Your task to perform on an android device: View the shopping cart on newegg.com. Search for "razer blackwidow" on newegg.com, select the first entry, add it to the cart, then select checkout. Image 0: 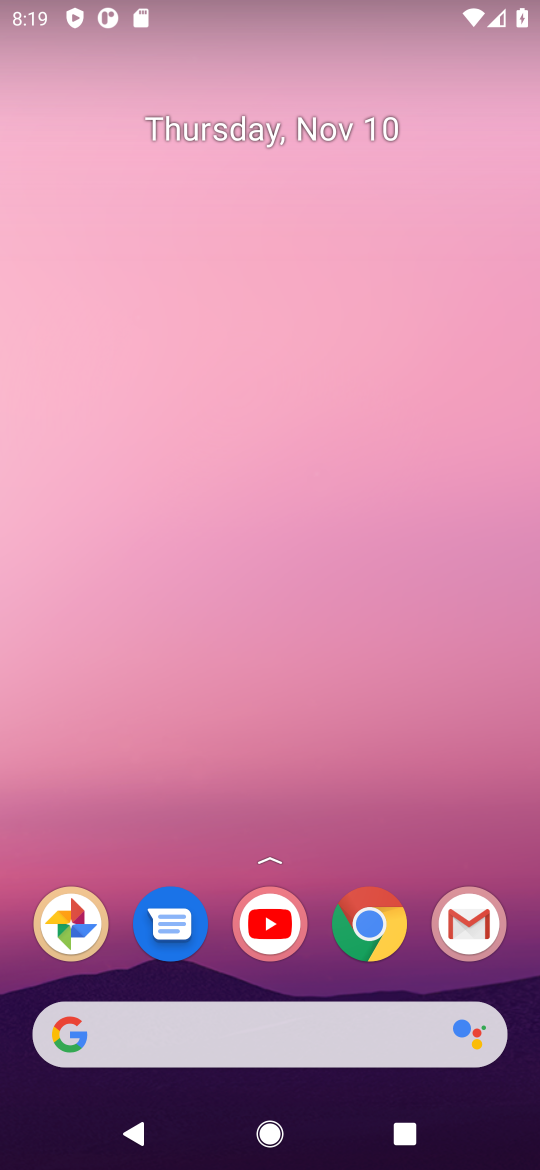
Step 0: click (368, 958)
Your task to perform on an android device: View the shopping cart on newegg.com. Search for "razer blackwidow" on newegg.com, select the first entry, add it to the cart, then select checkout. Image 1: 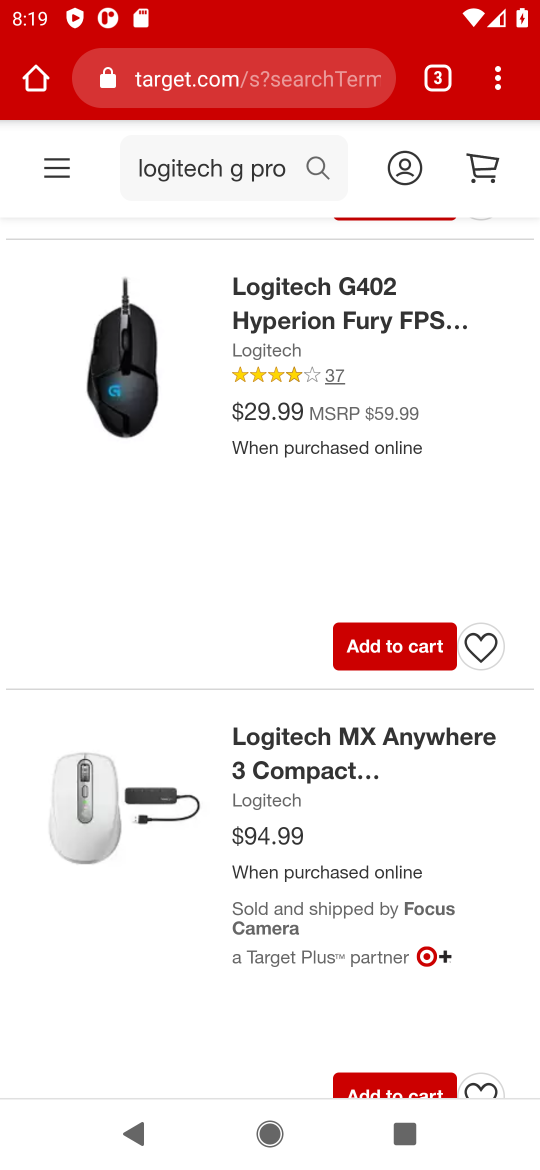
Step 1: click (197, 77)
Your task to perform on an android device: View the shopping cart on newegg.com. Search for "razer blackwidow" on newegg.com, select the first entry, add it to the cart, then select checkout. Image 2: 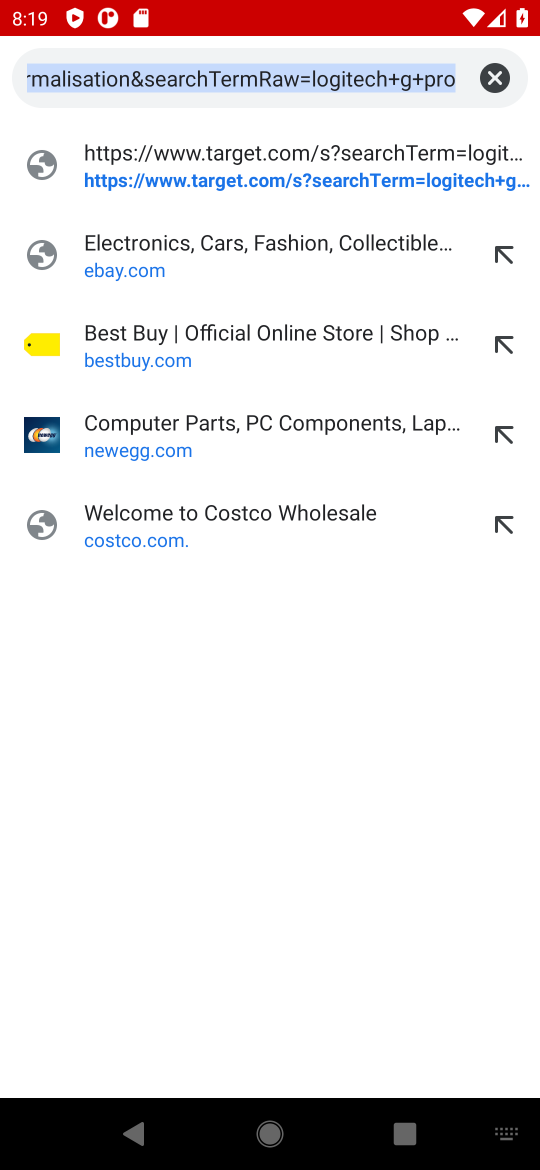
Step 2: click (118, 434)
Your task to perform on an android device: View the shopping cart on newegg.com. Search for "razer blackwidow" on newegg.com, select the first entry, add it to the cart, then select checkout. Image 3: 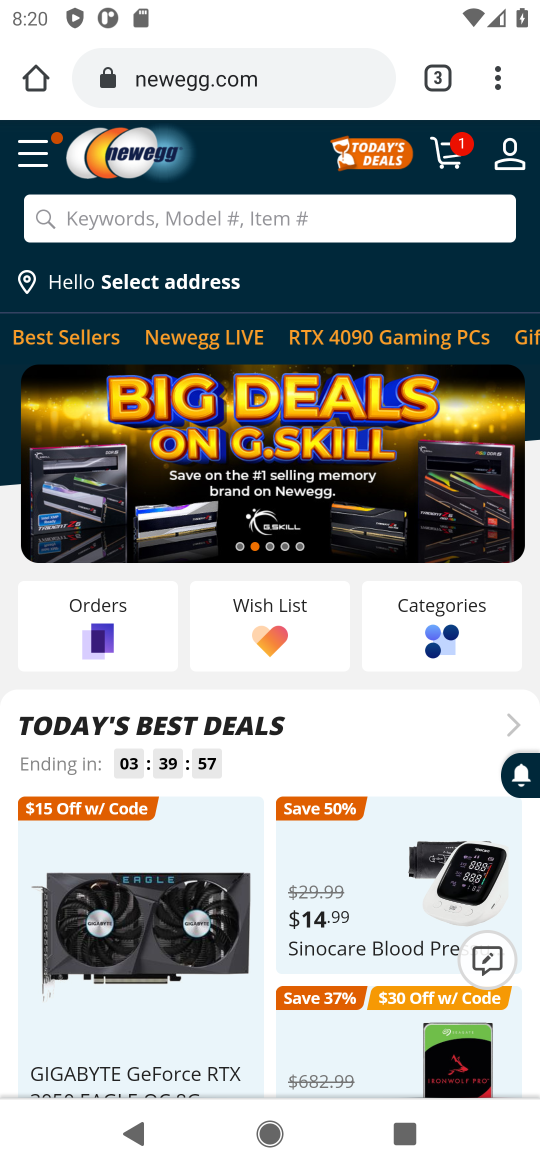
Step 3: click (452, 155)
Your task to perform on an android device: View the shopping cart on newegg.com. Search for "razer blackwidow" on newegg.com, select the first entry, add it to the cart, then select checkout. Image 4: 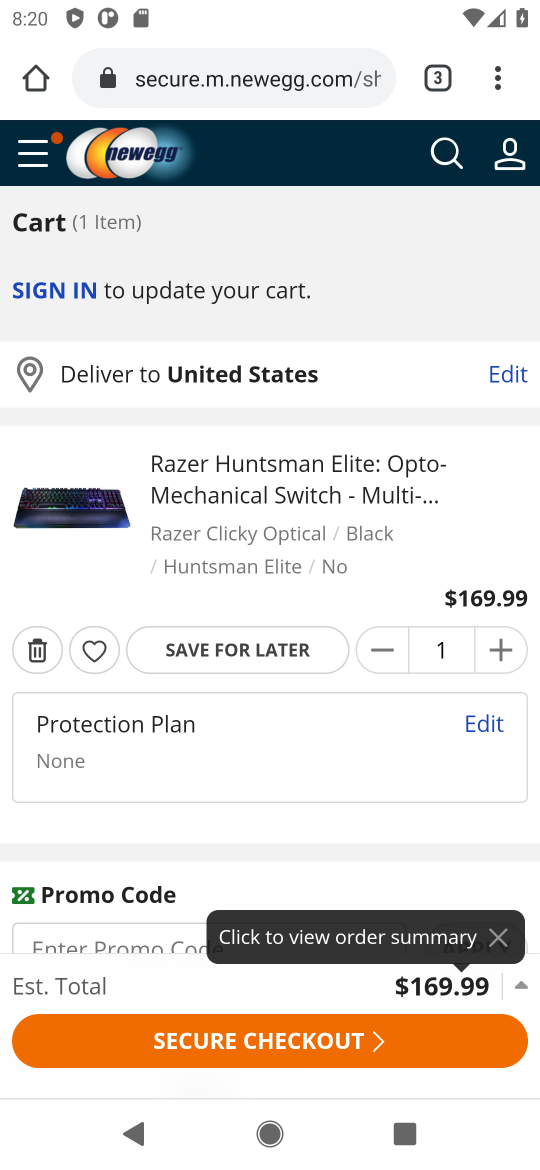
Step 4: click (439, 157)
Your task to perform on an android device: View the shopping cart on newegg.com. Search for "razer blackwidow" on newegg.com, select the first entry, add it to the cart, then select checkout. Image 5: 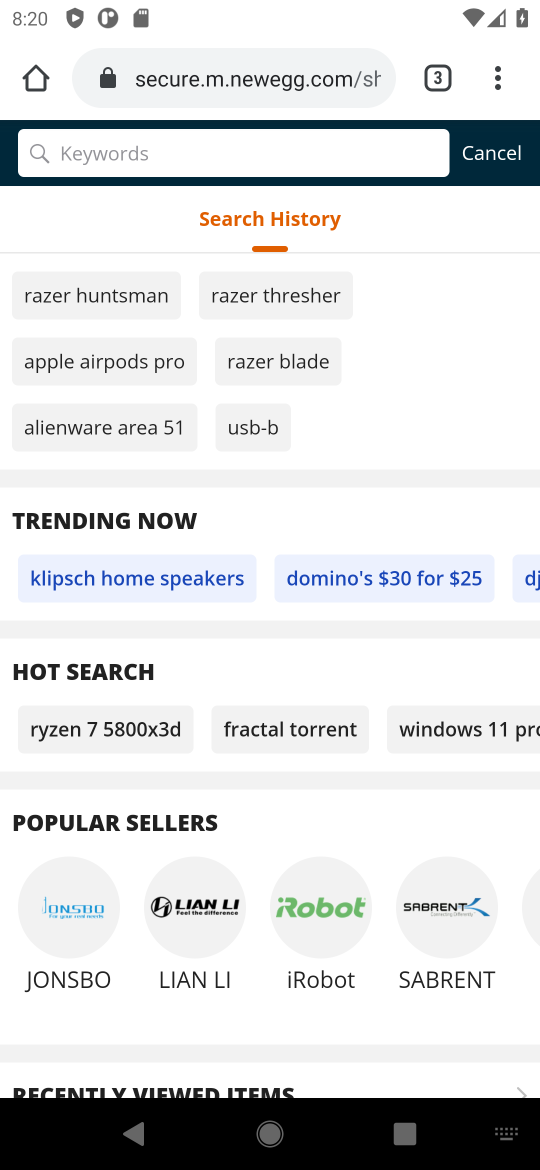
Step 5: type "razer blackwidow"
Your task to perform on an android device: View the shopping cart on newegg.com. Search for "razer blackwidow" on newegg.com, select the first entry, add it to the cart, then select checkout. Image 6: 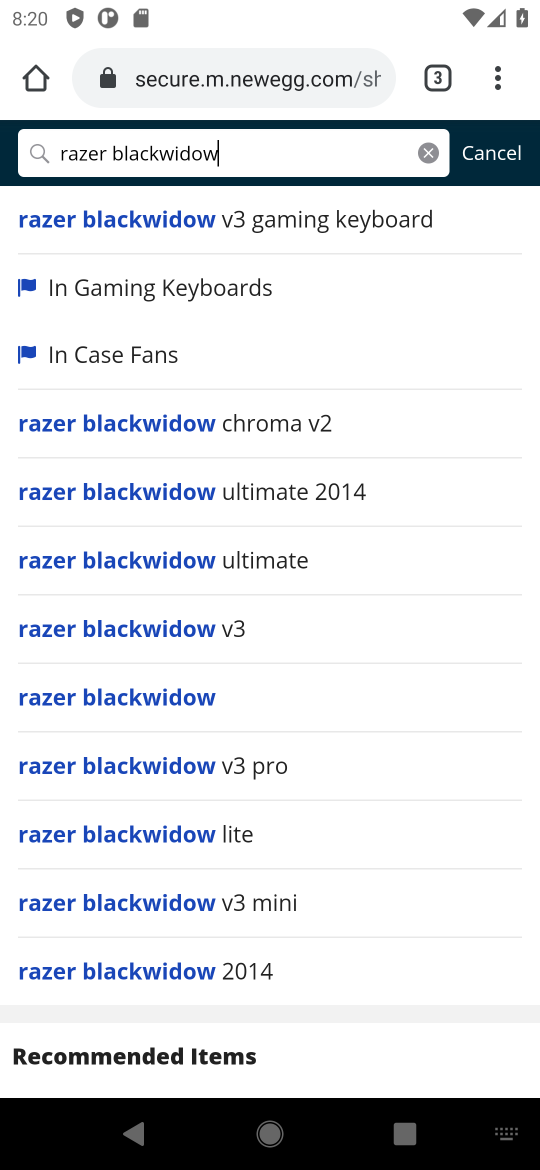
Step 6: click (161, 693)
Your task to perform on an android device: View the shopping cart on newegg.com. Search for "razer blackwidow" on newegg.com, select the first entry, add it to the cart, then select checkout. Image 7: 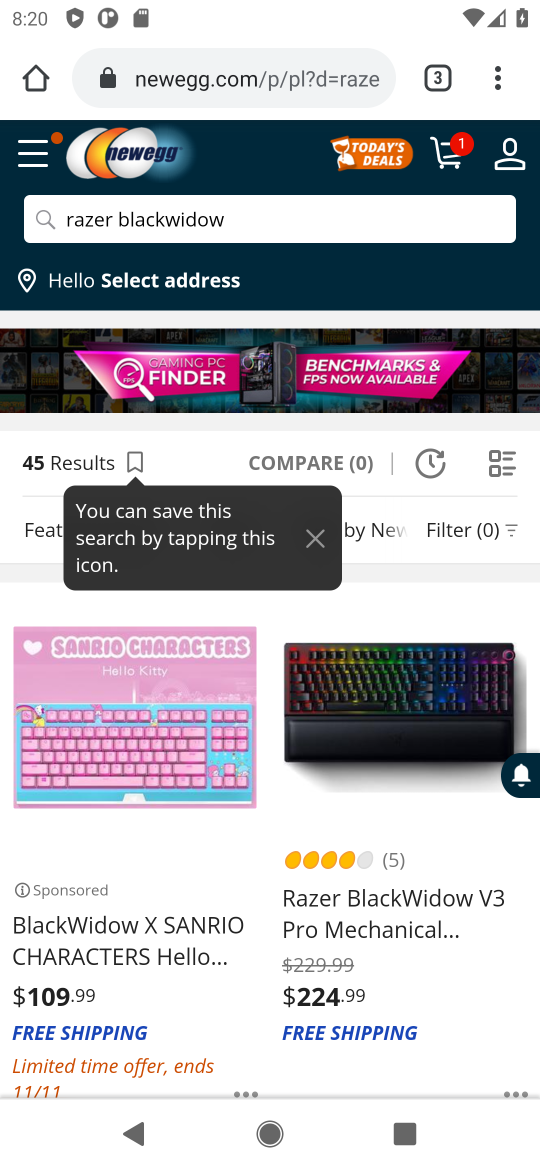
Step 7: click (139, 855)
Your task to perform on an android device: View the shopping cart on newegg.com. Search for "razer blackwidow" on newegg.com, select the first entry, add it to the cart, then select checkout. Image 8: 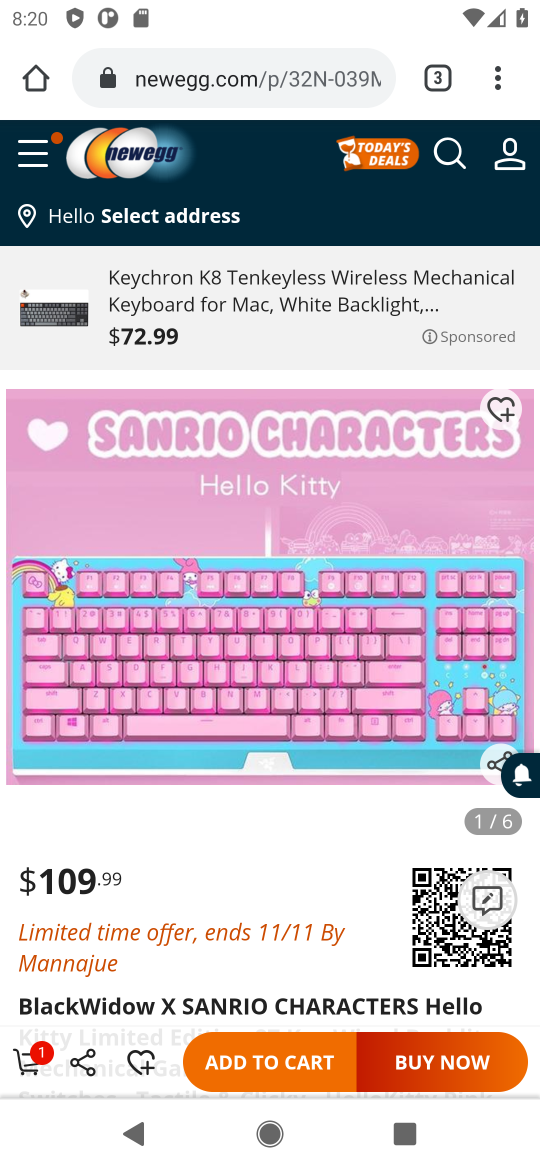
Step 8: task complete